Your task to perform on an android device: Go to ESPN.com Image 0: 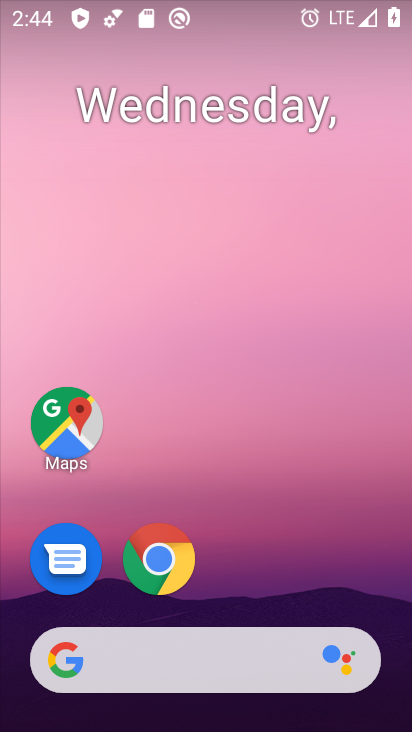
Step 0: click (165, 549)
Your task to perform on an android device: Go to ESPN.com Image 1: 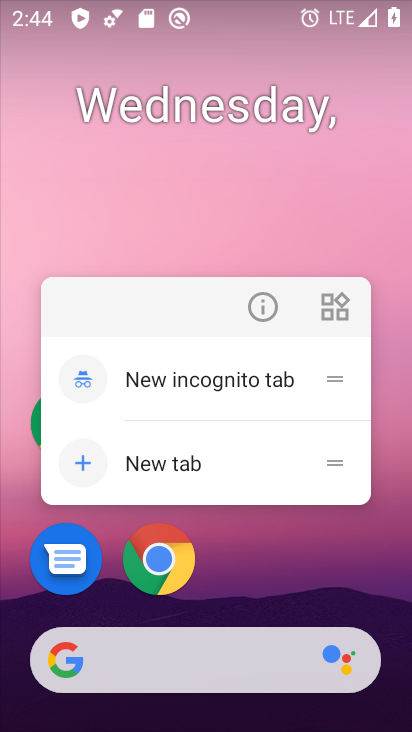
Step 1: click (148, 547)
Your task to perform on an android device: Go to ESPN.com Image 2: 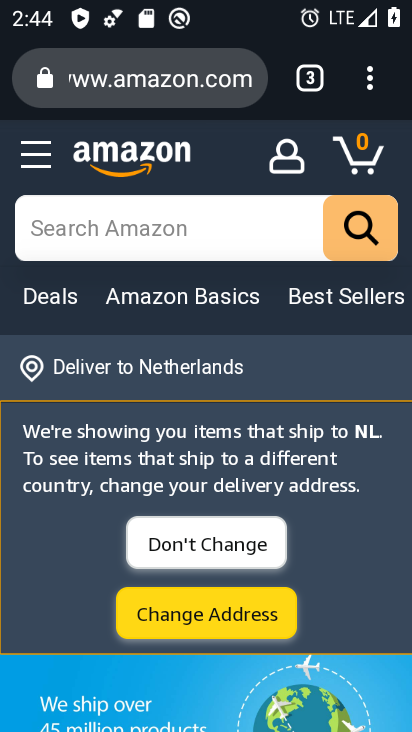
Step 2: click (316, 78)
Your task to perform on an android device: Go to ESPN.com Image 3: 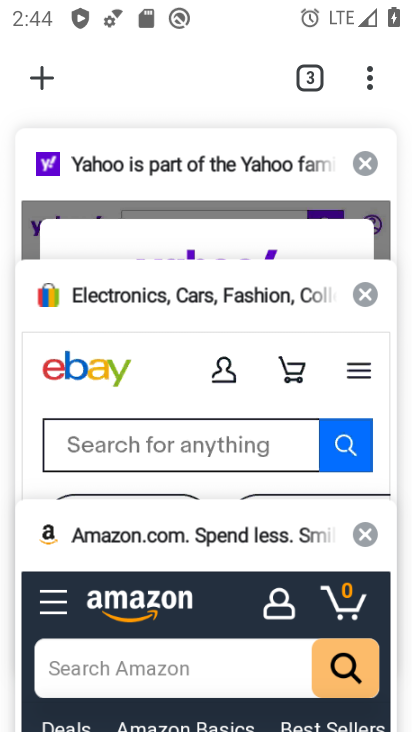
Step 3: drag from (200, 354) to (191, 724)
Your task to perform on an android device: Go to ESPN.com Image 4: 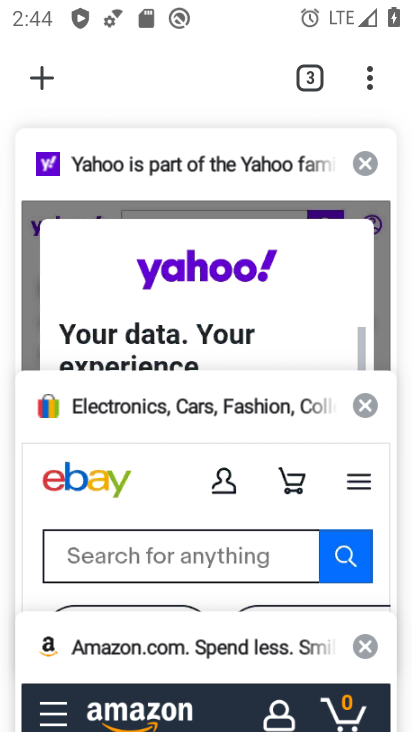
Step 4: drag from (199, 287) to (168, 728)
Your task to perform on an android device: Go to ESPN.com Image 5: 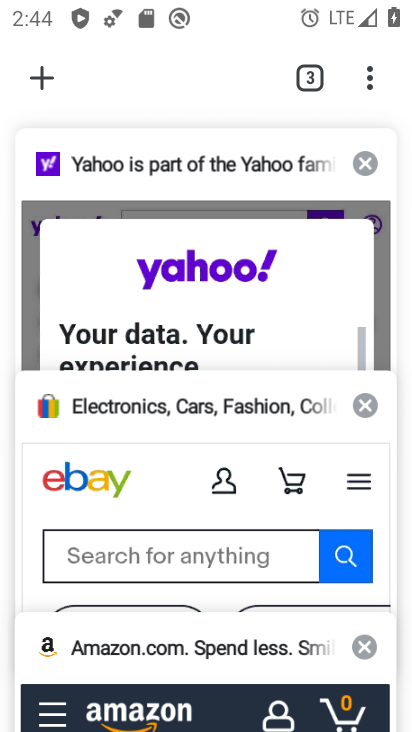
Step 5: click (46, 78)
Your task to perform on an android device: Go to ESPN.com Image 6: 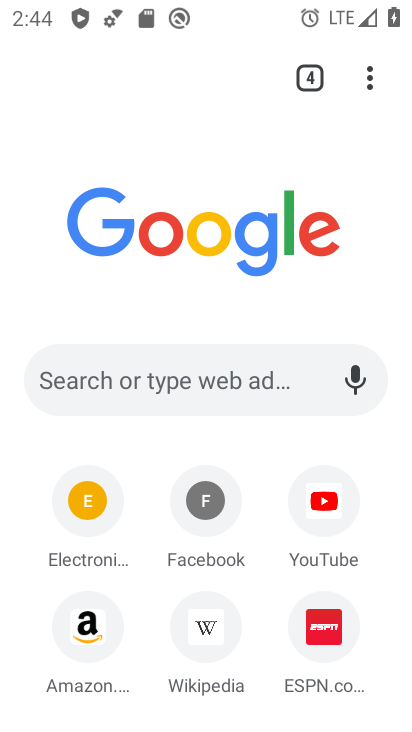
Step 6: click (310, 602)
Your task to perform on an android device: Go to ESPN.com Image 7: 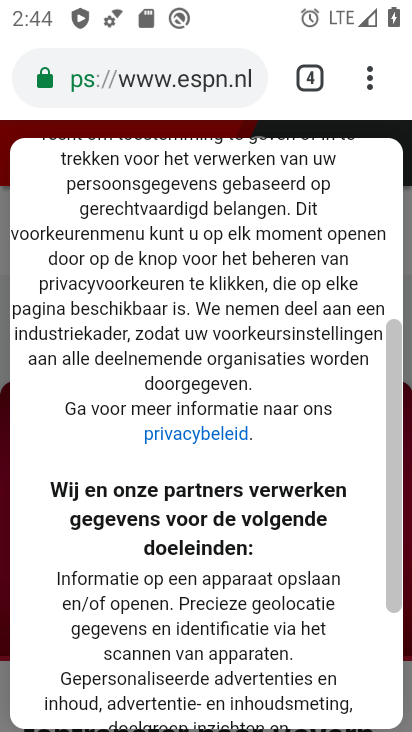
Step 7: task complete